Your task to perform on an android device: find which apps use the phone's location Image 0: 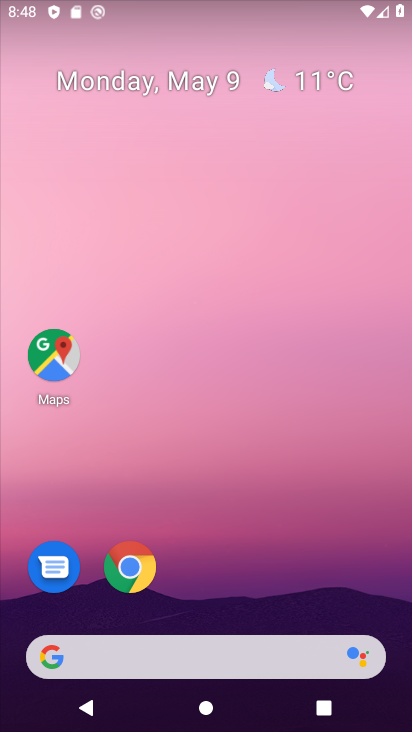
Step 0: drag from (202, 623) to (326, 120)
Your task to perform on an android device: find which apps use the phone's location Image 1: 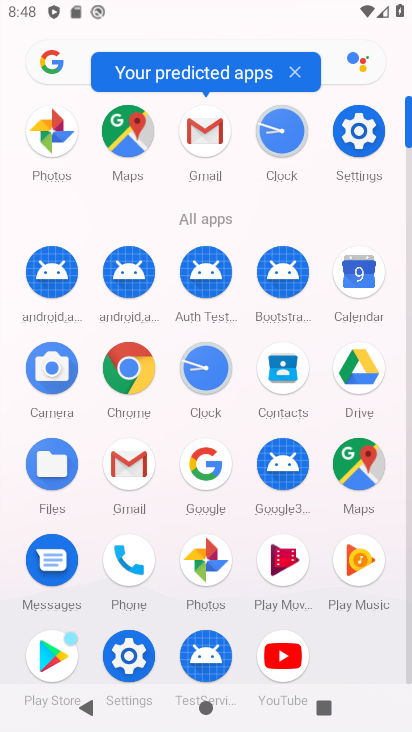
Step 1: click (136, 660)
Your task to perform on an android device: find which apps use the phone's location Image 2: 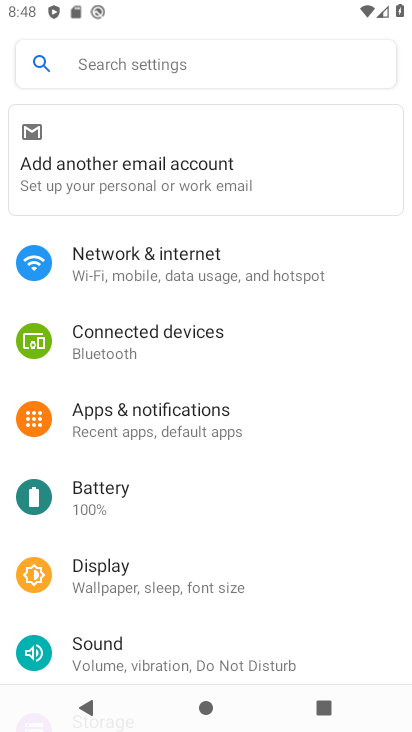
Step 2: drag from (142, 645) to (247, 179)
Your task to perform on an android device: find which apps use the phone's location Image 3: 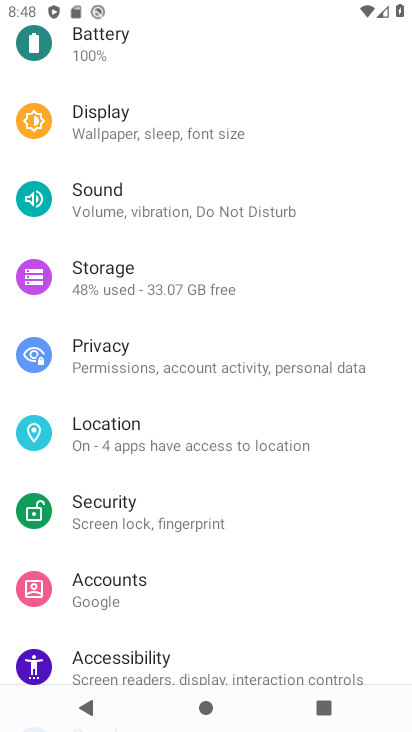
Step 3: drag from (180, 635) to (271, 206)
Your task to perform on an android device: find which apps use the phone's location Image 4: 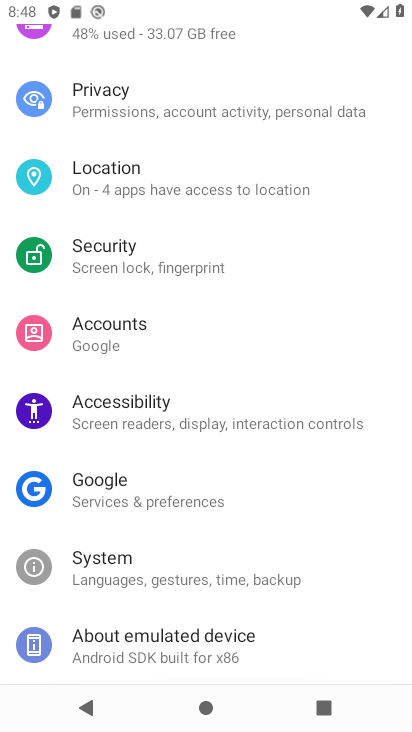
Step 4: drag from (248, 193) to (241, 442)
Your task to perform on an android device: find which apps use the phone's location Image 5: 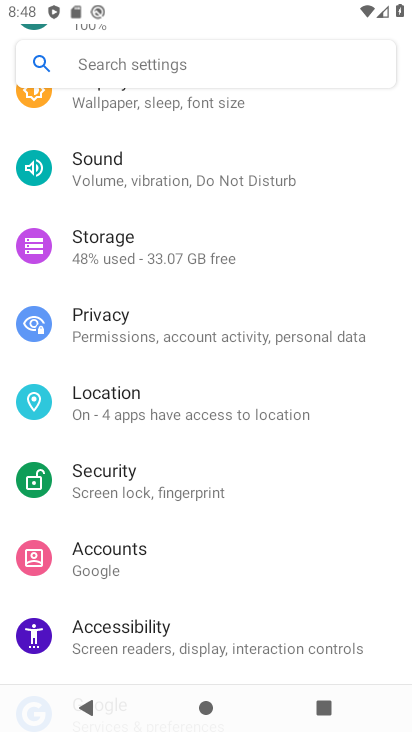
Step 5: click (104, 391)
Your task to perform on an android device: find which apps use the phone's location Image 6: 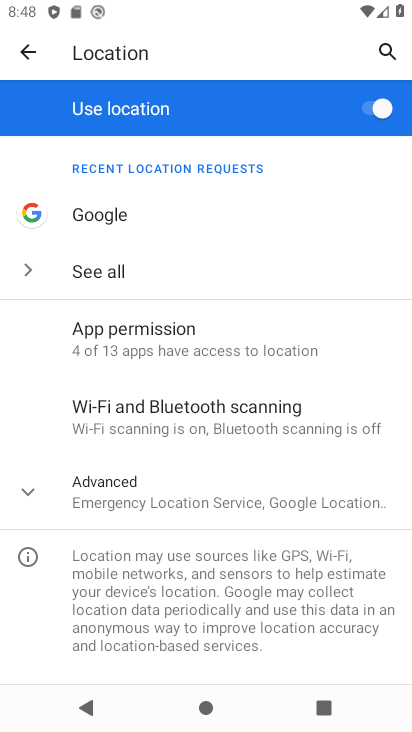
Step 6: click (168, 346)
Your task to perform on an android device: find which apps use the phone's location Image 7: 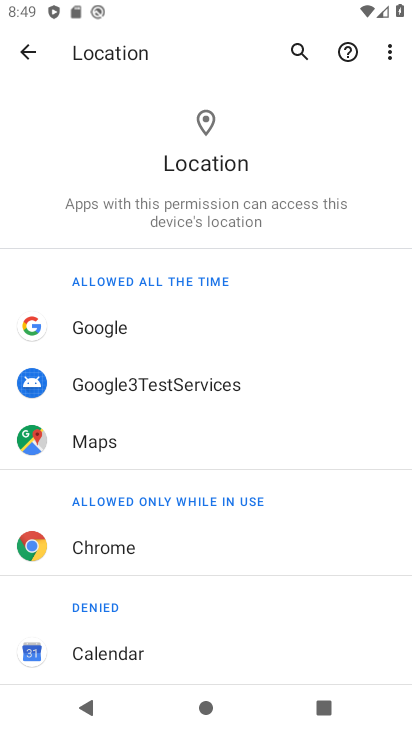
Step 7: task complete